Your task to perform on an android device: manage bookmarks in the chrome app Image 0: 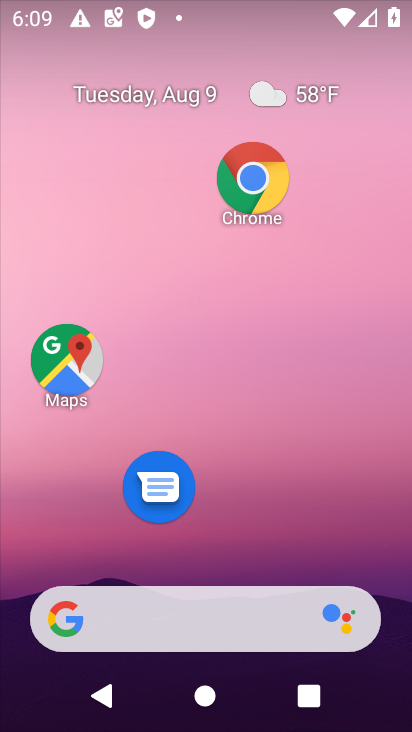
Step 0: click (268, 190)
Your task to perform on an android device: manage bookmarks in the chrome app Image 1: 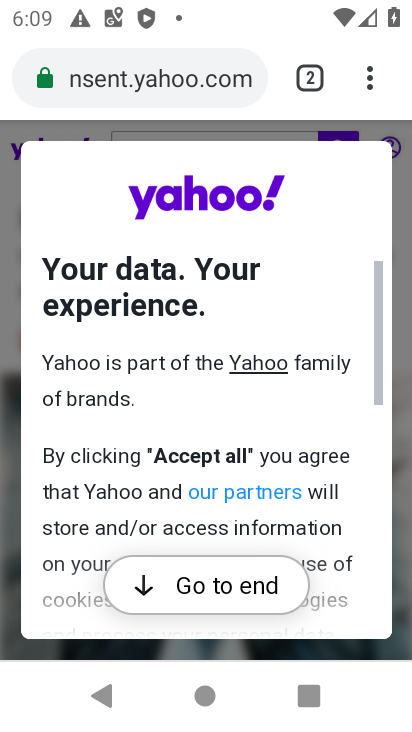
Step 1: click (367, 73)
Your task to perform on an android device: manage bookmarks in the chrome app Image 2: 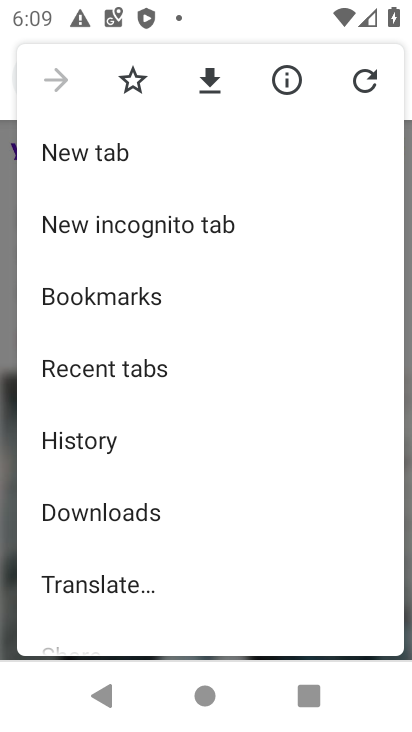
Step 2: click (127, 291)
Your task to perform on an android device: manage bookmarks in the chrome app Image 3: 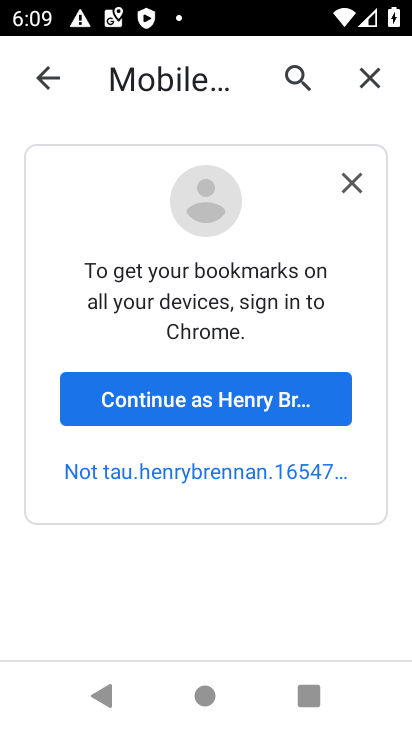
Step 3: click (184, 400)
Your task to perform on an android device: manage bookmarks in the chrome app Image 4: 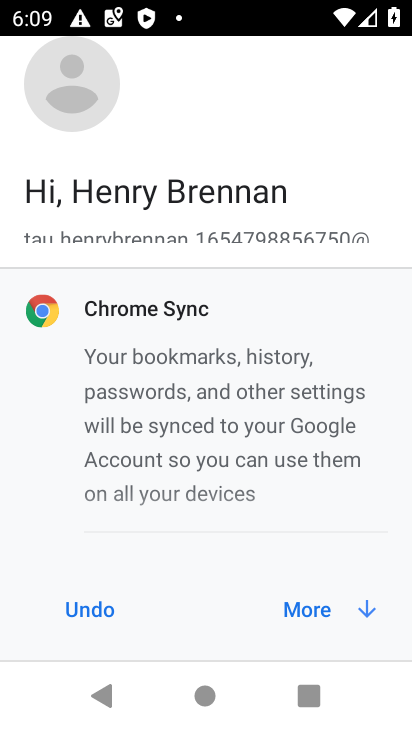
Step 4: click (297, 612)
Your task to perform on an android device: manage bookmarks in the chrome app Image 5: 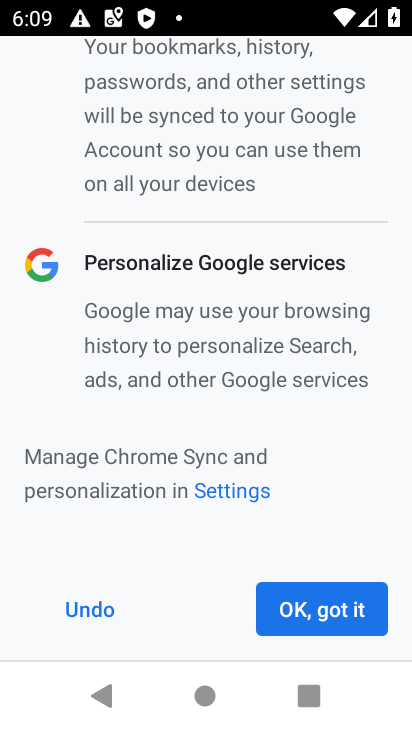
Step 5: click (297, 612)
Your task to perform on an android device: manage bookmarks in the chrome app Image 6: 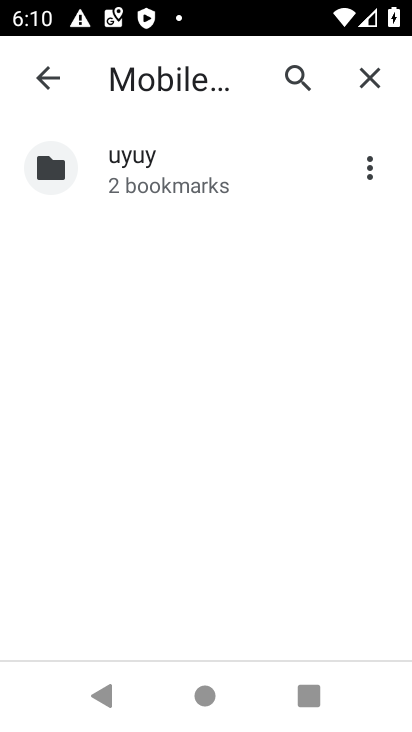
Step 6: click (166, 176)
Your task to perform on an android device: manage bookmarks in the chrome app Image 7: 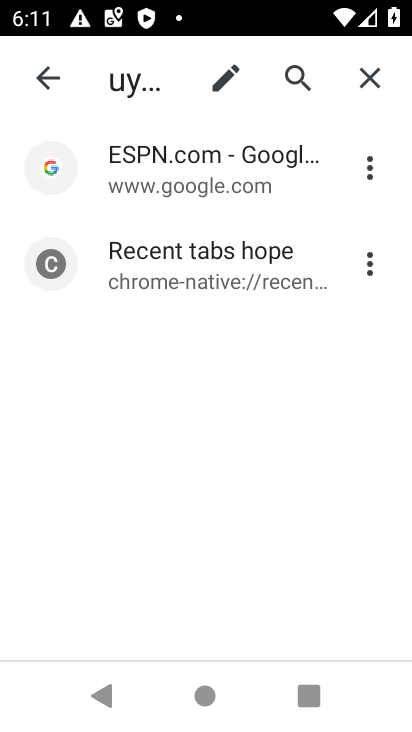
Step 7: task complete